Your task to perform on an android device: Open my contact list Image 0: 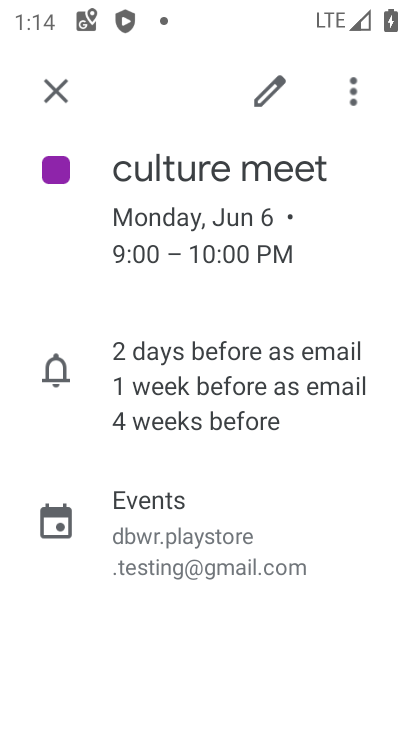
Step 0: press home button
Your task to perform on an android device: Open my contact list Image 1: 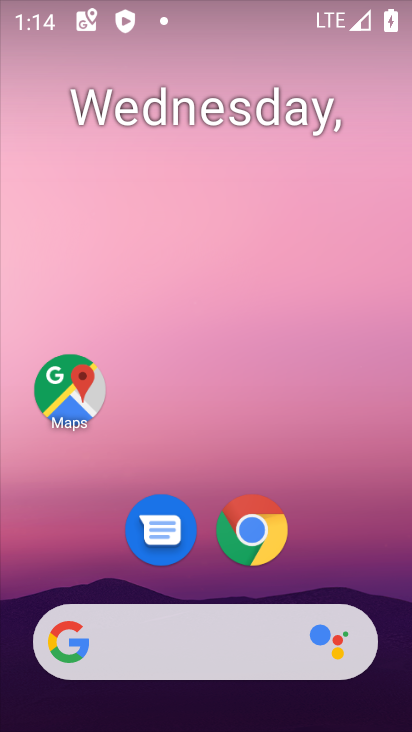
Step 1: drag from (358, 557) to (338, 212)
Your task to perform on an android device: Open my contact list Image 2: 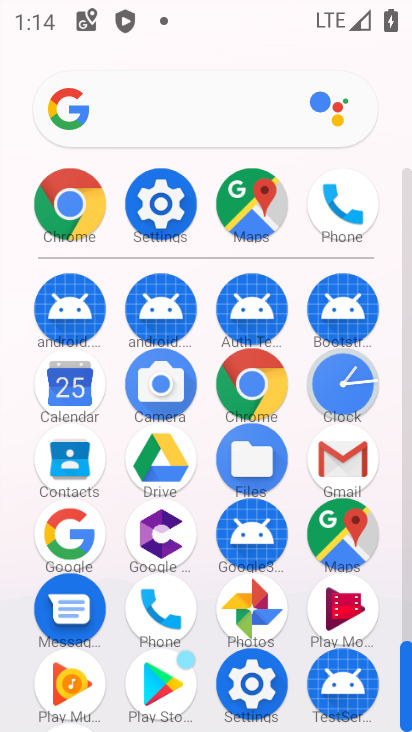
Step 2: click (70, 471)
Your task to perform on an android device: Open my contact list Image 3: 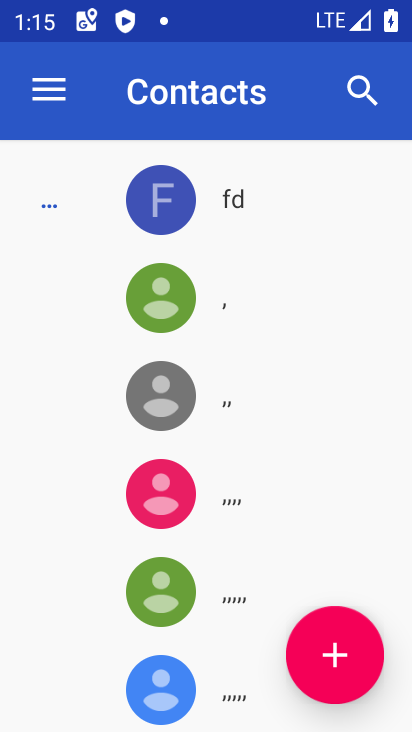
Step 3: task complete